Your task to perform on an android device: Go to accessibility settings Image 0: 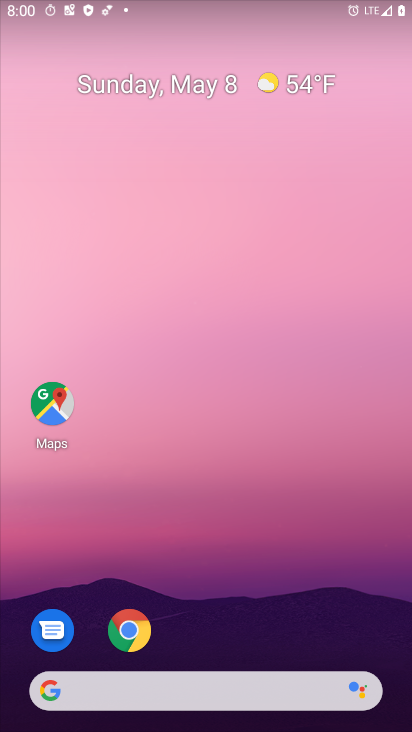
Step 0: drag from (217, 662) to (156, 19)
Your task to perform on an android device: Go to accessibility settings Image 1: 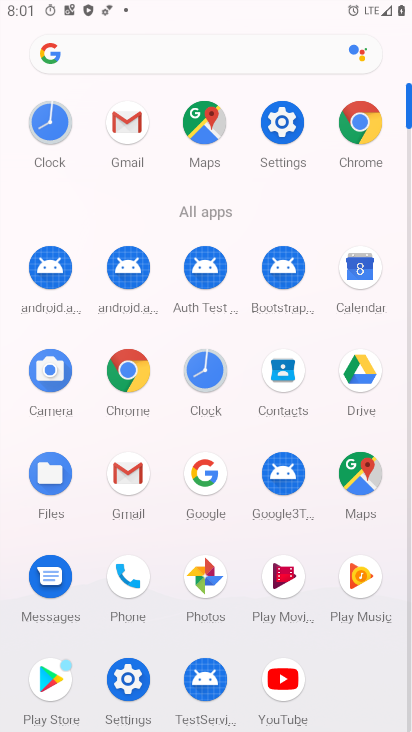
Step 1: click (286, 108)
Your task to perform on an android device: Go to accessibility settings Image 2: 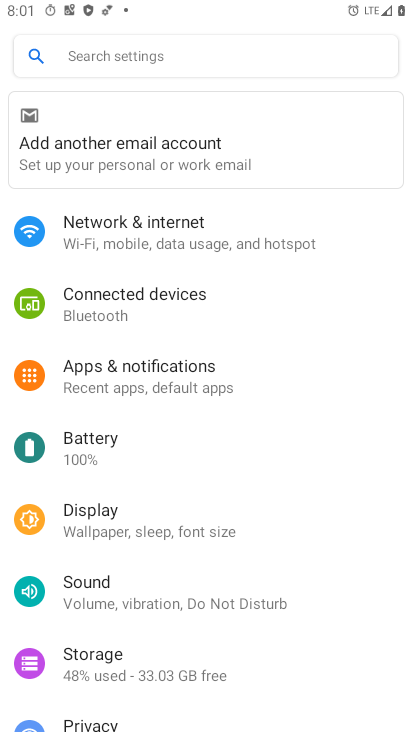
Step 2: drag from (304, 550) to (221, 69)
Your task to perform on an android device: Go to accessibility settings Image 3: 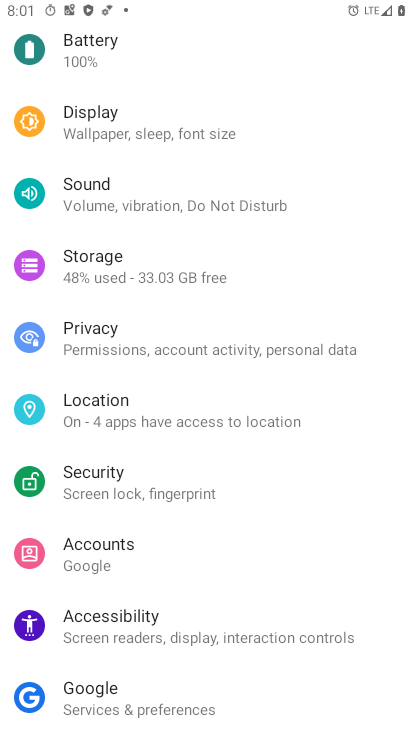
Step 3: click (117, 645)
Your task to perform on an android device: Go to accessibility settings Image 4: 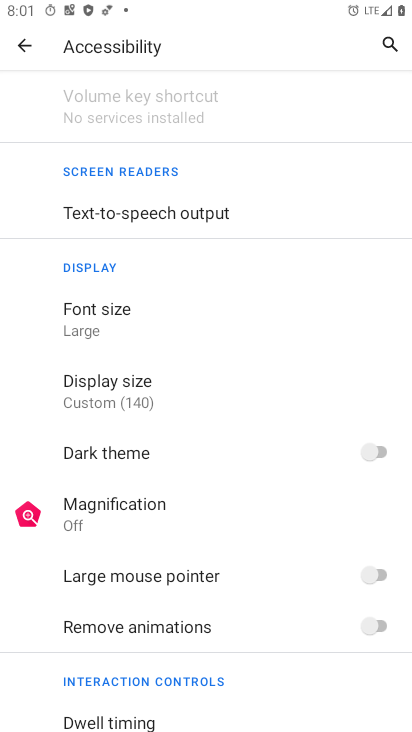
Step 4: task complete